Your task to perform on an android device: turn off improve location accuracy Image 0: 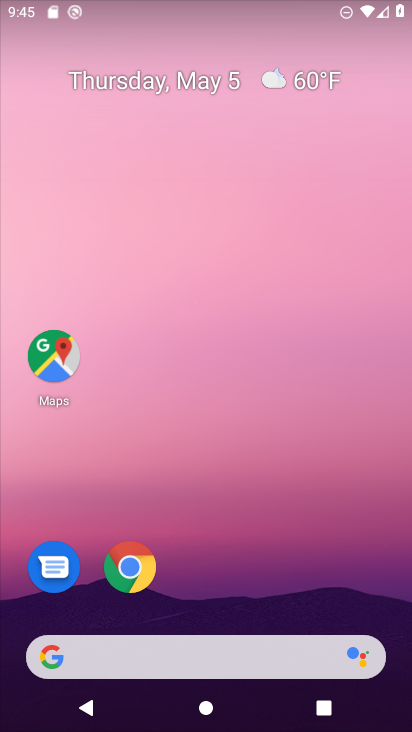
Step 0: drag from (224, 728) to (227, 201)
Your task to perform on an android device: turn off improve location accuracy Image 1: 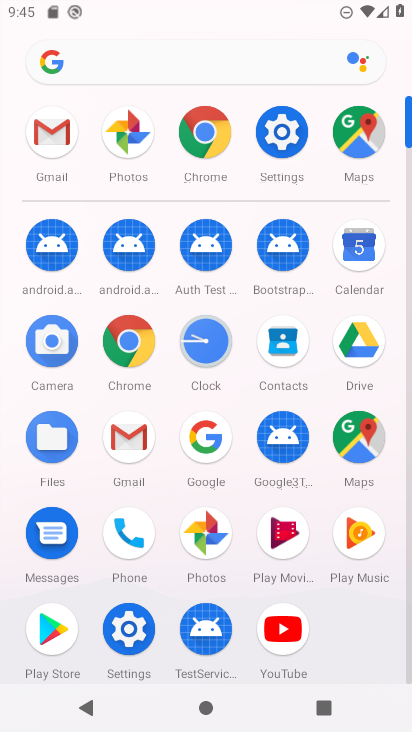
Step 1: click (284, 137)
Your task to perform on an android device: turn off improve location accuracy Image 2: 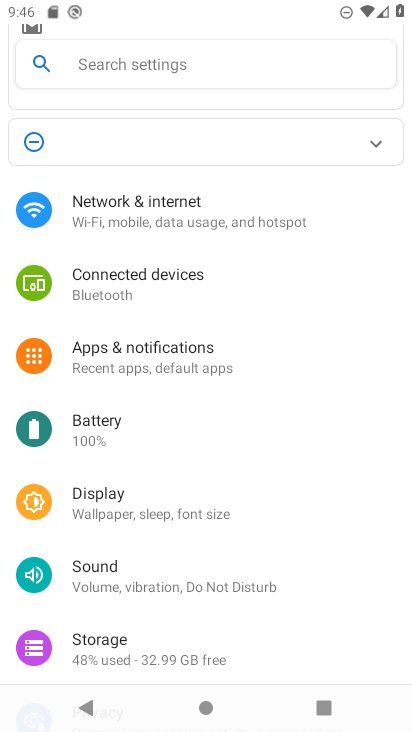
Step 2: drag from (131, 635) to (127, 275)
Your task to perform on an android device: turn off improve location accuracy Image 3: 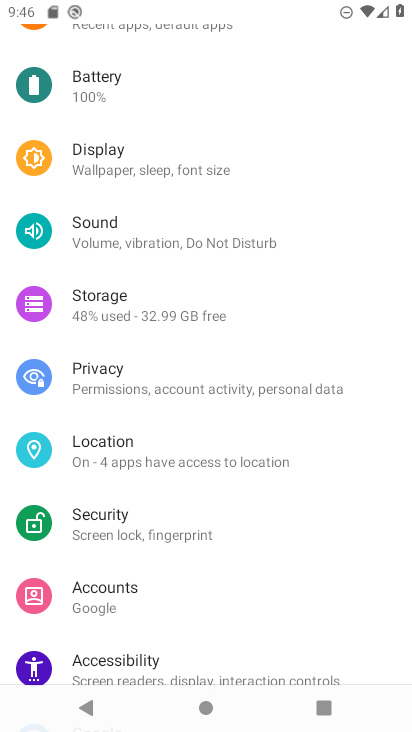
Step 3: click (118, 450)
Your task to perform on an android device: turn off improve location accuracy Image 4: 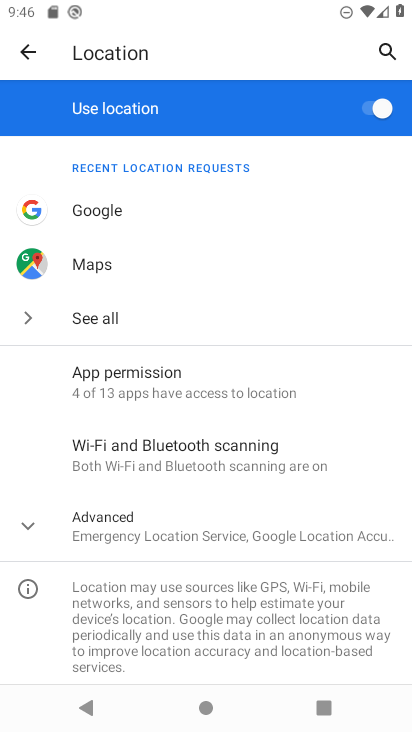
Step 4: click (106, 524)
Your task to perform on an android device: turn off improve location accuracy Image 5: 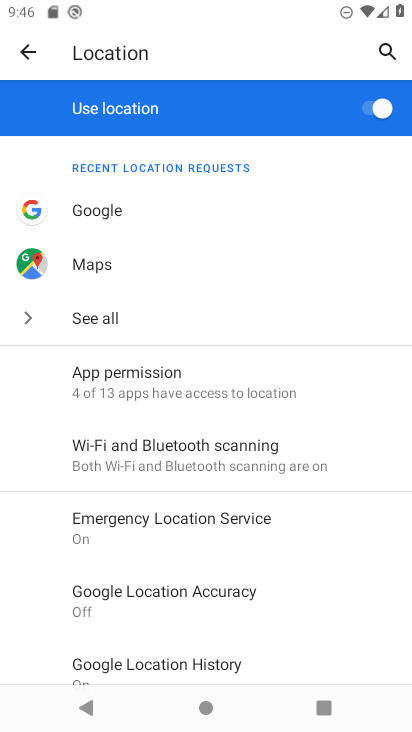
Step 5: click (178, 593)
Your task to perform on an android device: turn off improve location accuracy Image 6: 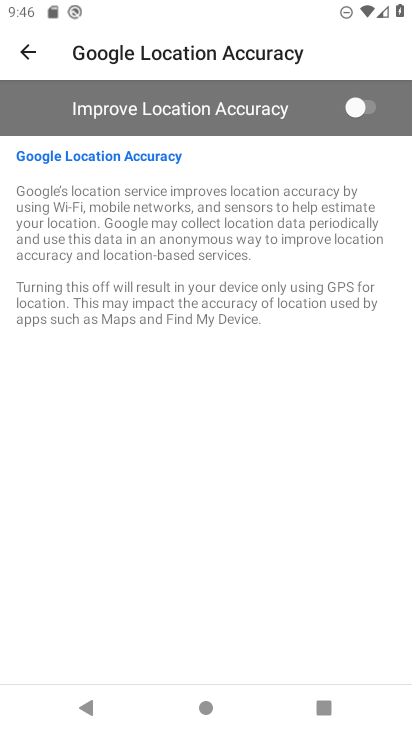
Step 6: task complete